Your task to perform on an android device: Search for sushi restaurants on Maps Image 0: 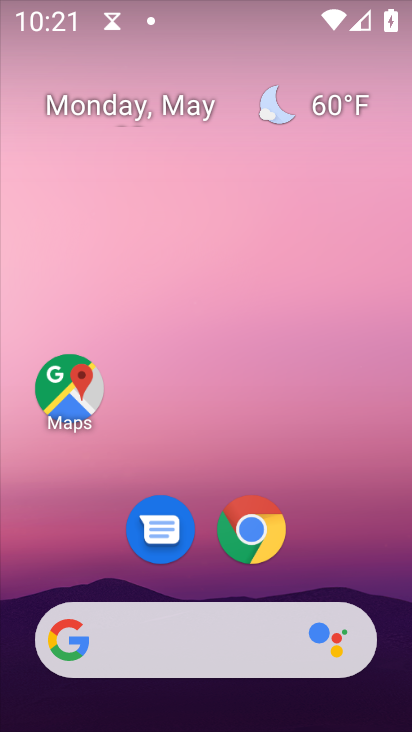
Step 0: click (68, 392)
Your task to perform on an android device: Search for sushi restaurants on Maps Image 1: 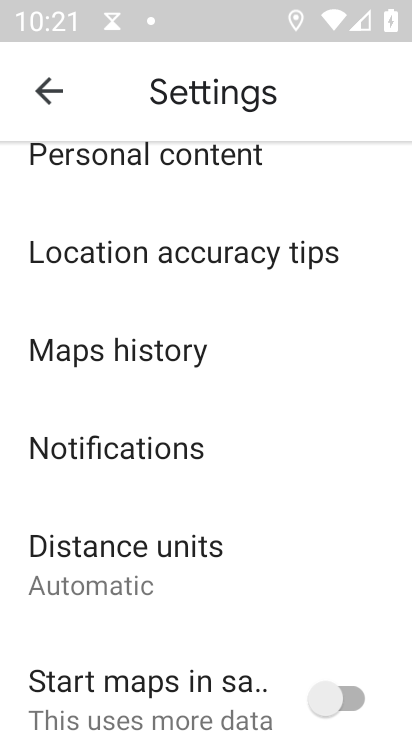
Step 1: click (45, 108)
Your task to perform on an android device: Search for sushi restaurants on Maps Image 2: 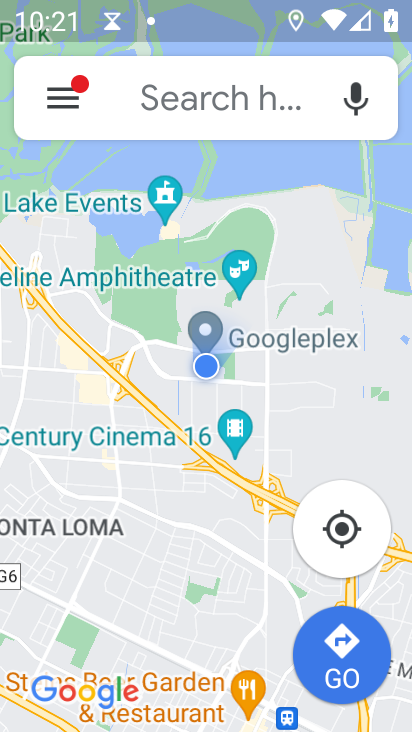
Step 2: click (173, 118)
Your task to perform on an android device: Search for sushi restaurants on Maps Image 3: 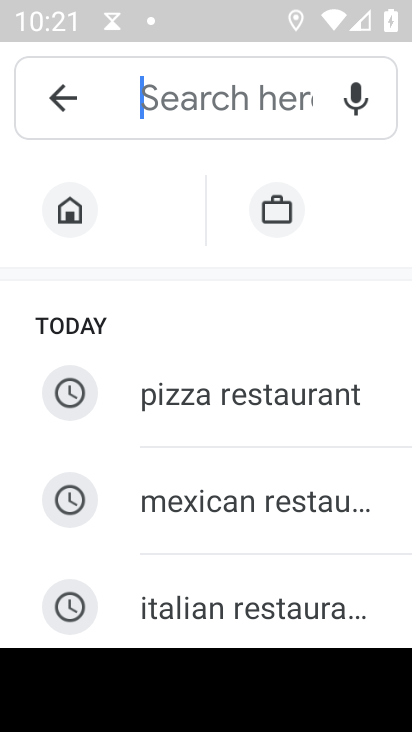
Step 3: drag from (257, 585) to (254, 358)
Your task to perform on an android device: Search for sushi restaurants on Maps Image 4: 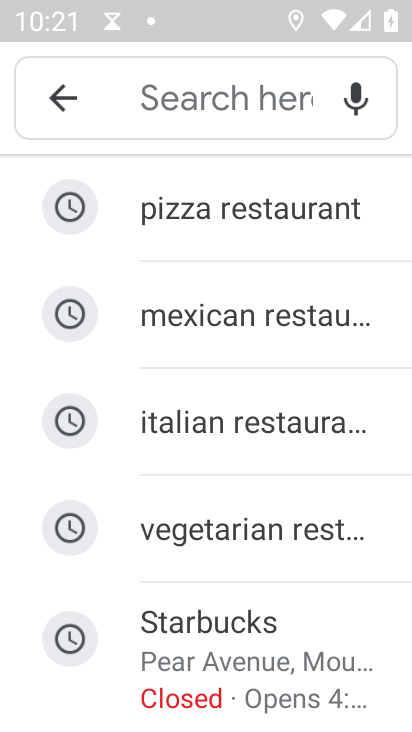
Step 4: drag from (255, 553) to (283, 321)
Your task to perform on an android device: Search for sushi restaurants on Maps Image 5: 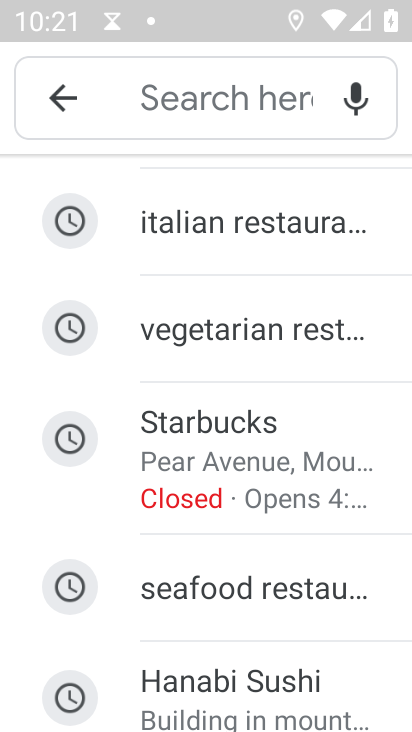
Step 5: drag from (237, 662) to (254, 438)
Your task to perform on an android device: Search for sushi restaurants on Maps Image 6: 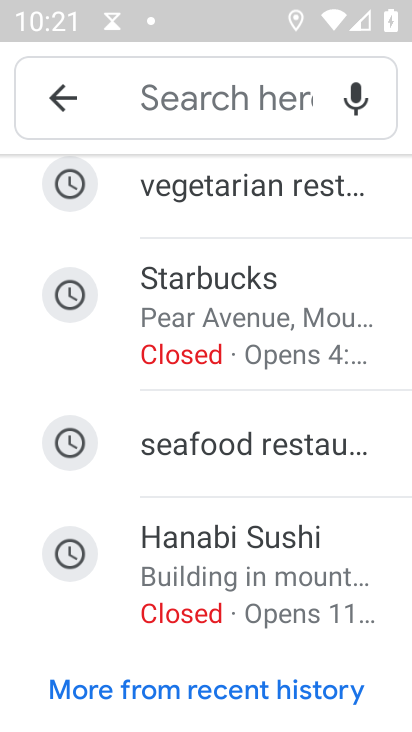
Step 6: click (231, 87)
Your task to perform on an android device: Search for sushi restaurants on Maps Image 7: 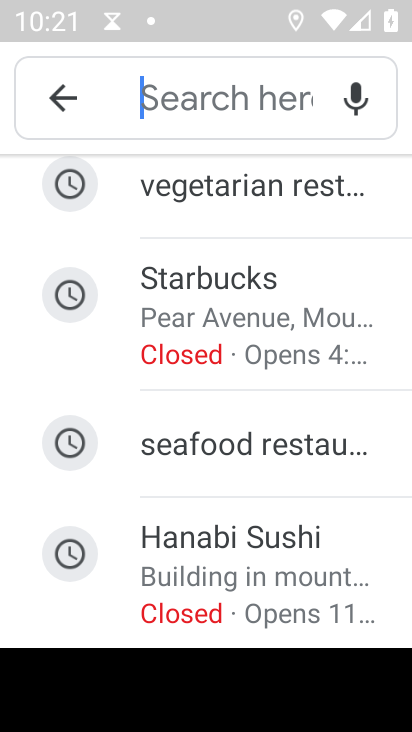
Step 7: type "sushi restaurants"
Your task to perform on an android device: Search for sushi restaurants on Maps Image 8: 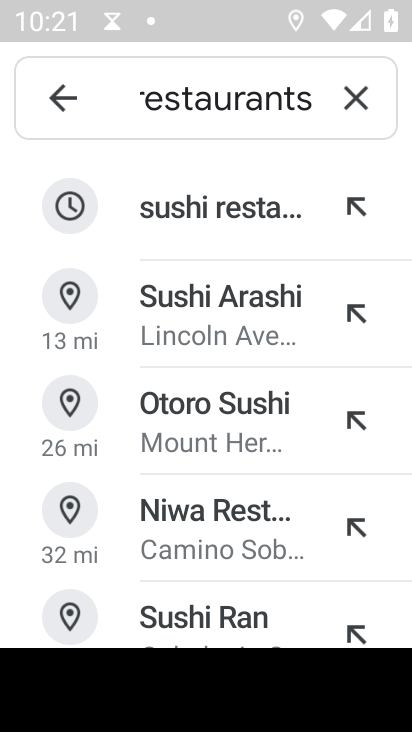
Step 8: click (192, 219)
Your task to perform on an android device: Search for sushi restaurants on Maps Image 9: 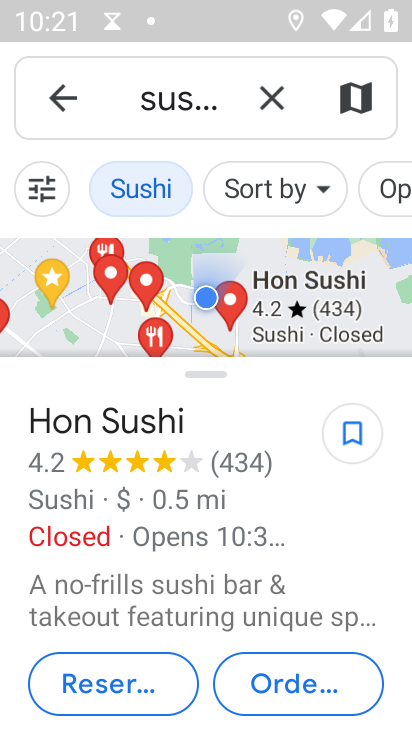
Step 9: task complete